Your task to perform on an android device: turn on the 12-hour format for clock Image 0: 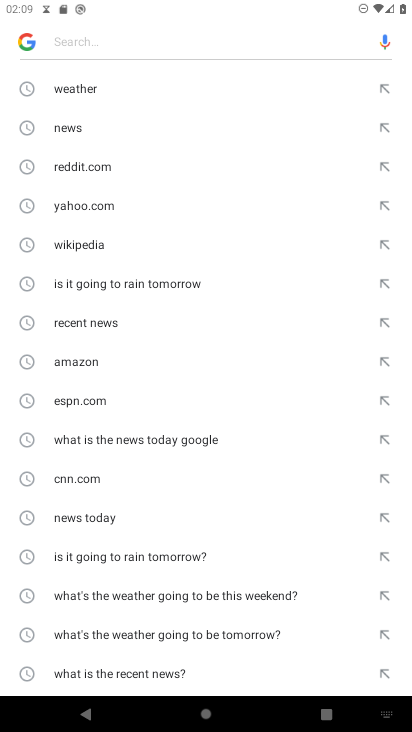
Step 0: press home button
Your task to perform on an android device: turn on the 12-hour format for clock Image 1: 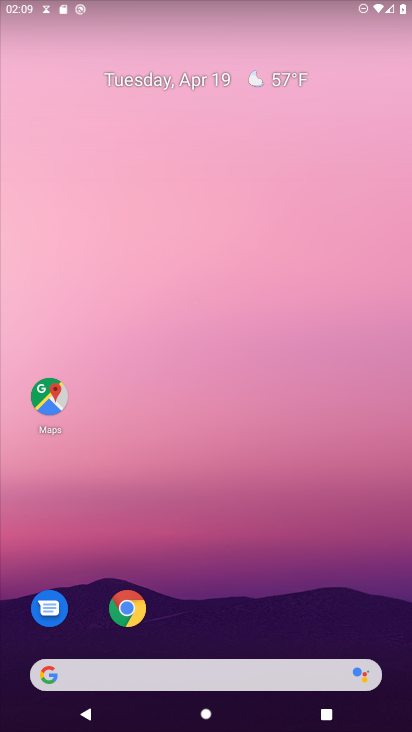
Step 1: drag from (155, 344) to (78, 154)
Your task to perform on an android device: turn on the 12-hour format for clock Image 2: 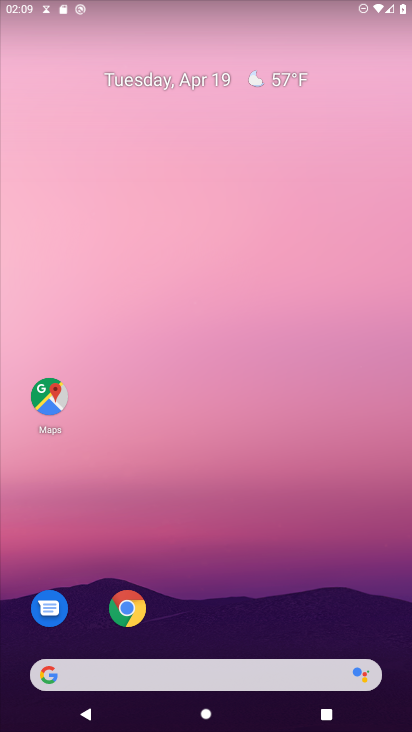
Step 2: drag from (228, 627) to (236, 46)
Your task to perform on an android device: turn on the 12-hour format for clock Image 3: 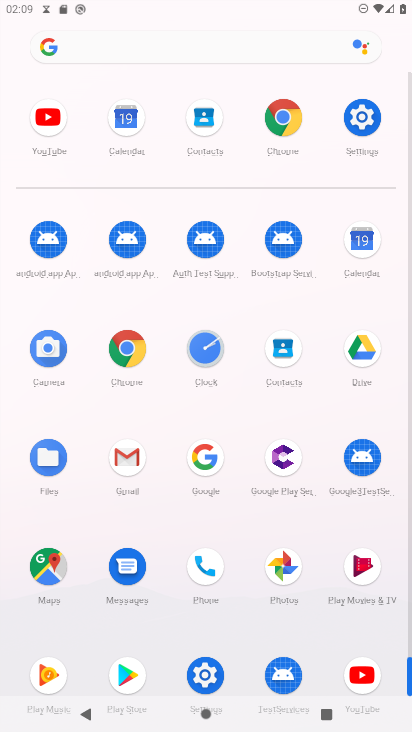
Step 3: click (207, 342)
Your task to perform on an android device: turn on the 12-hour format for clock Image 4: 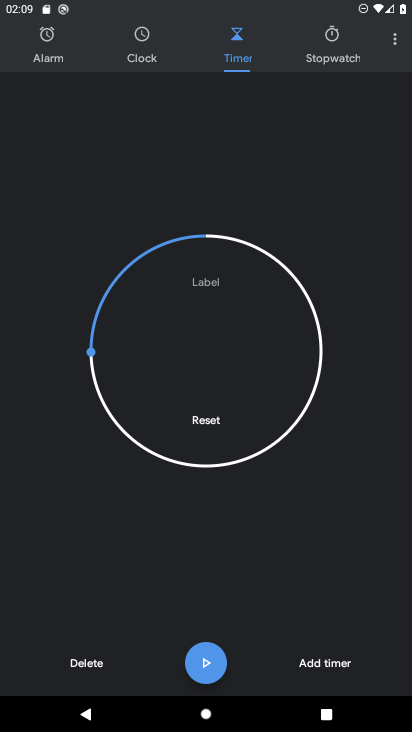
Step 4: click (399, 40)
Your task to perform on an android device: turn on the 12-hour format for clock Image 5: 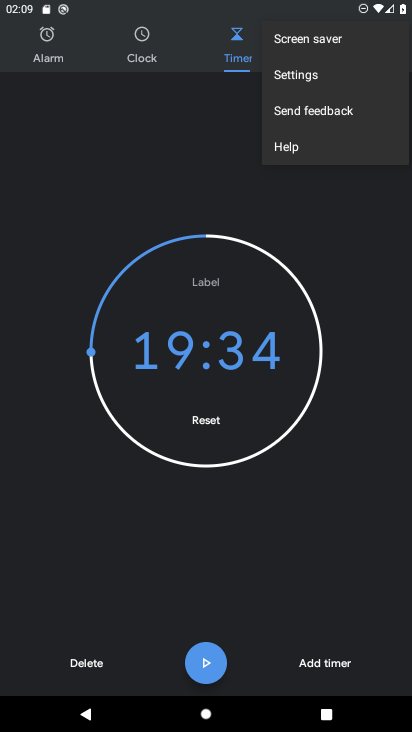
Step 5: click (304, 80)
Your task to perform on an android device: turn on the 12-hour format for clock Image 6: 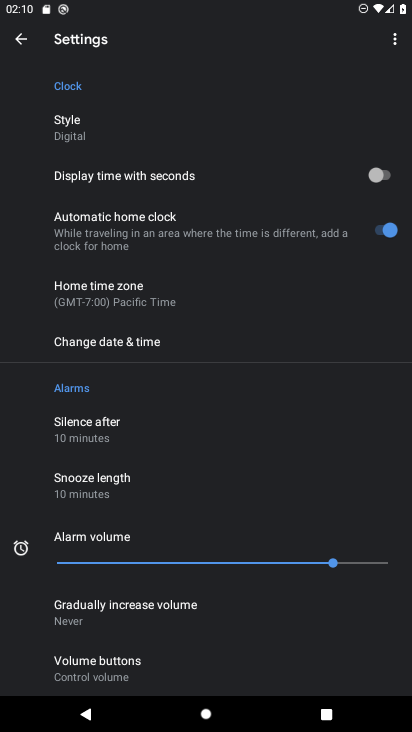
Step 6: click (149, 341)
Your task to perform on an android device: turn on the 12-hour format for clock Image 7: 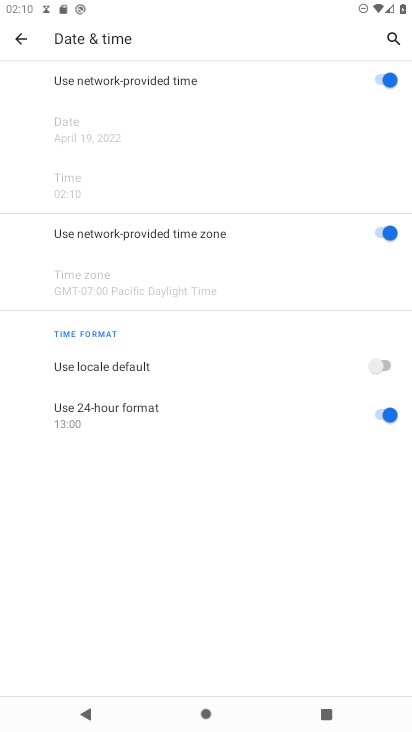
Step 7: click (388, 362)
Your task to perform on an android device: turn on the 12-hour format for clock Image 8: 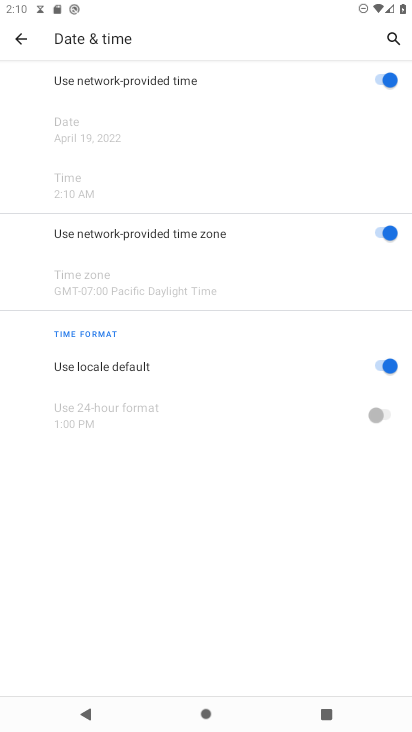
Step 8: task complete